Your task to perform on an android device: visit the assistant section in the google photos Image 0: 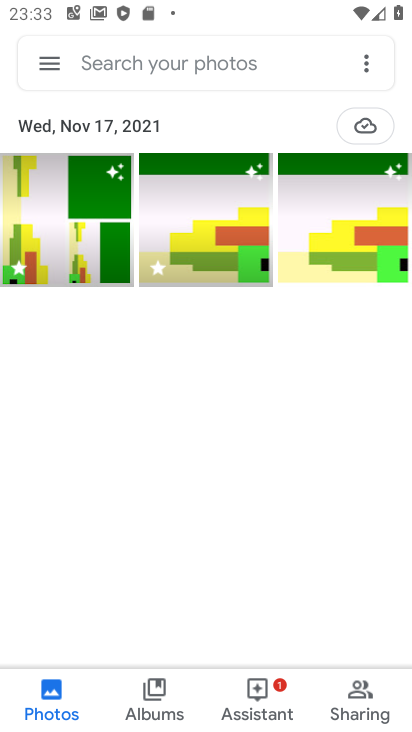
Step 0: click (246, 685)
Your task to perform on an android device: visit the assistant section in the google photos Image 1: 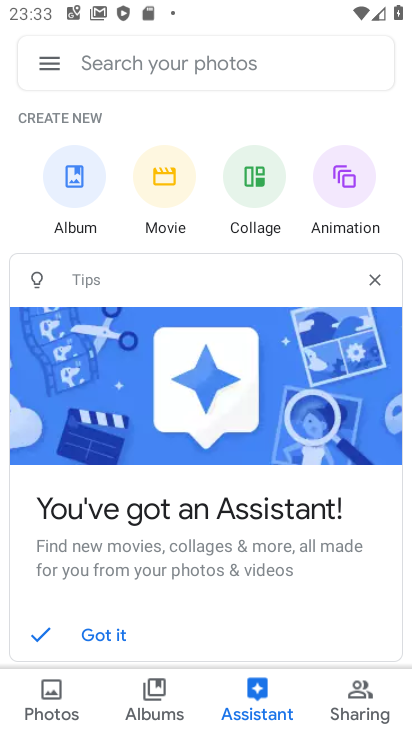
Step 1: task complete